Your task to perform on an android device: Open network settings Image 0: 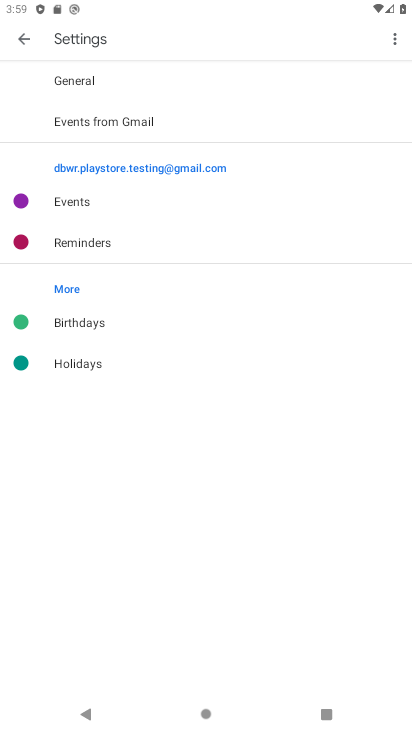
Step 0: click (86, 80)
Your task to perform on an android device: Open network settings Image 1: 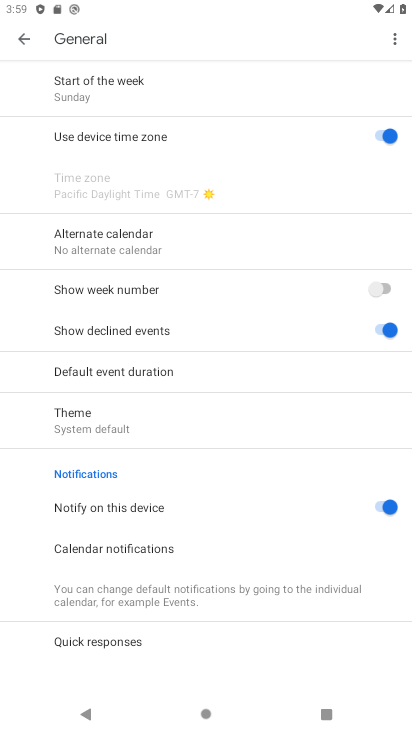
Step 1: click (25, 37)
Your task to perform on an android device: Open network settings Image 2: 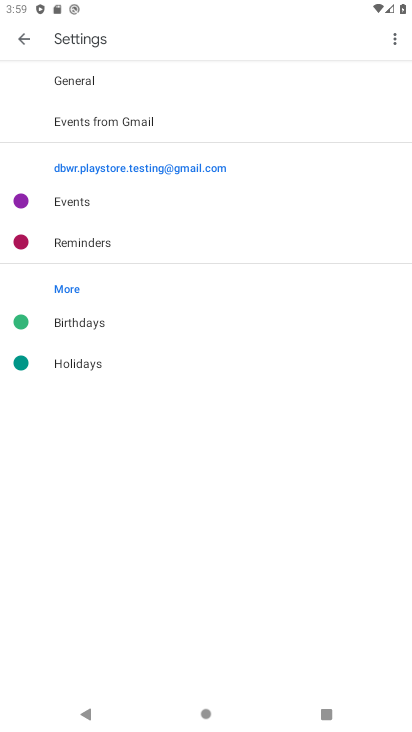
Step 2: click (32, 37)
Your task to perform on an android device: Open network settings Image 3: 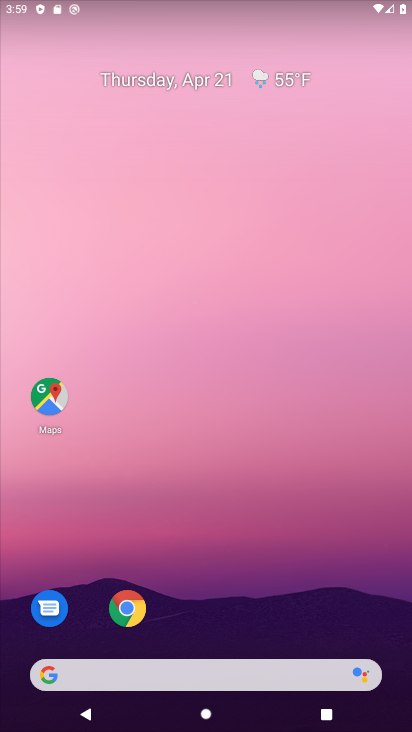
Step 3: drag from (198, 635) to (242, 35)
Your task to perform on an android device: Open network settings Image 4: 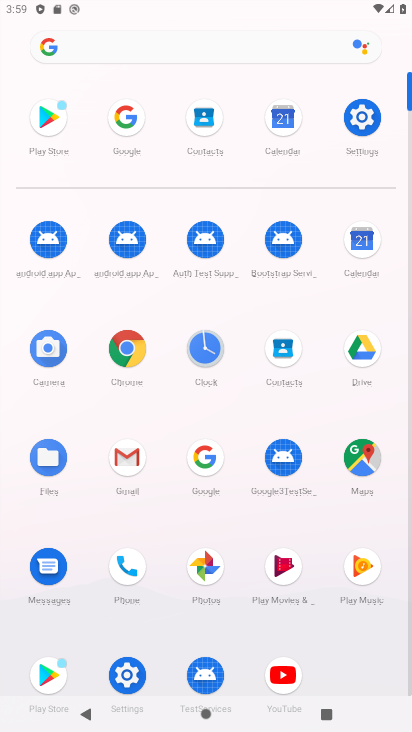
Step 4: click (356, 128)
Your task to perform on an android device: Open network settings Image 5: 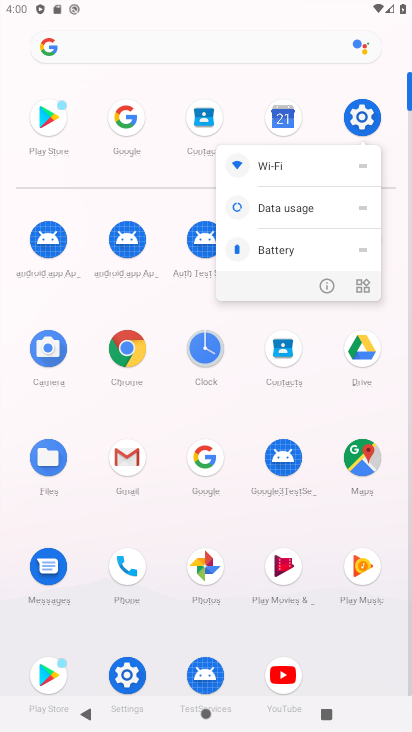
Step 5: click (364, 135)
Your task to perform on an android device: Open network settings Image 6: 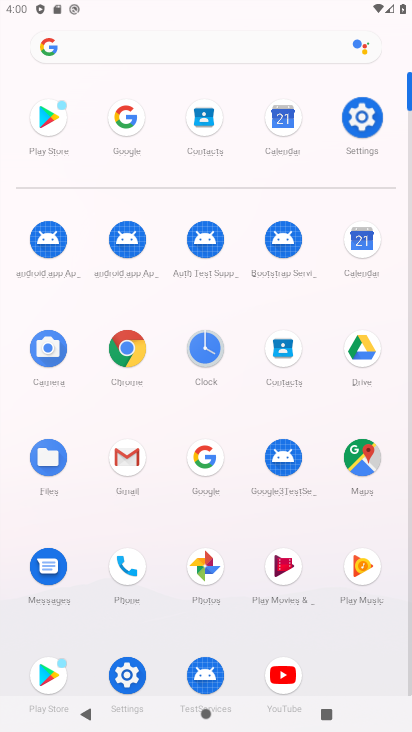
Step 6: click (363, 114)
Your task to perform on an android device: Open network settings Image 7: 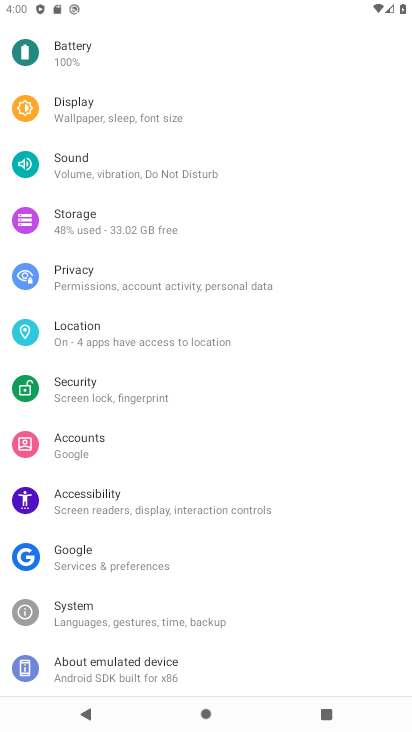
Step 7: click (362, 113)
Your task to perform on an android device: Open network settings Image 8: 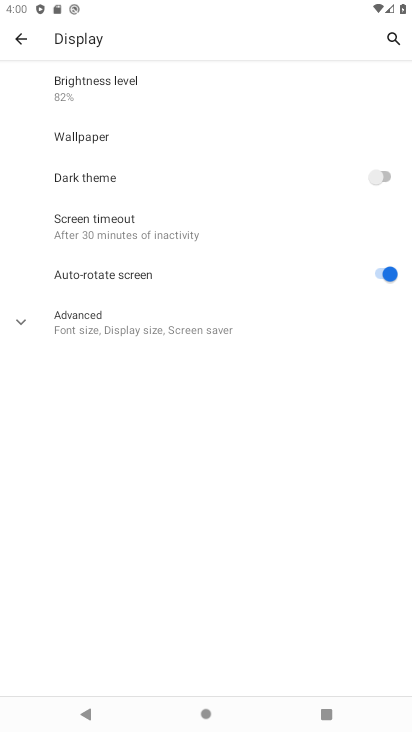
Step 8: click (21, 38)
Your task to perform on an android device: Open network settings Image 9: 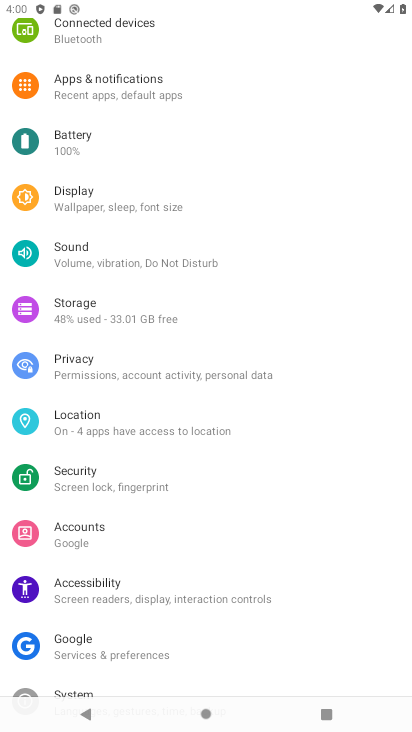
Step 9: drag from (237, 591) to (281, 176)
Your task to perform on an android device: Open network settings Image 10: 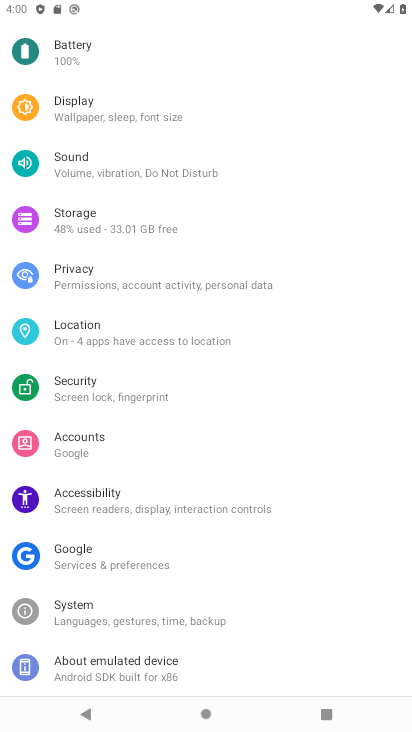
Step 10: drag from (267, 145) to (217, 564)
Your task to perform on an android device: Open network settings Image 11: 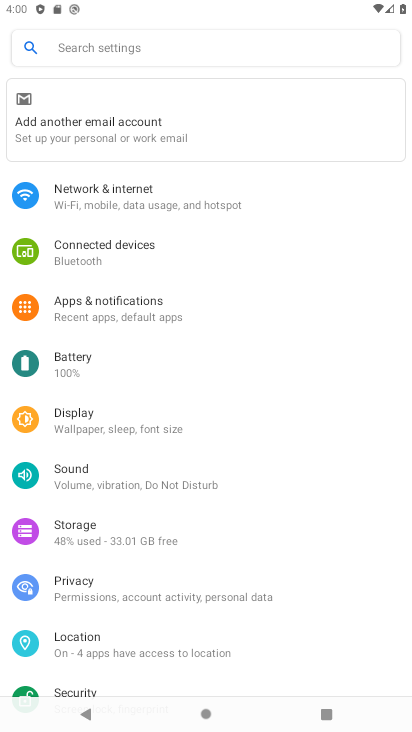
Step 11: click (202, 207)
Your task to perform on an android device: Open network settings Image 12: 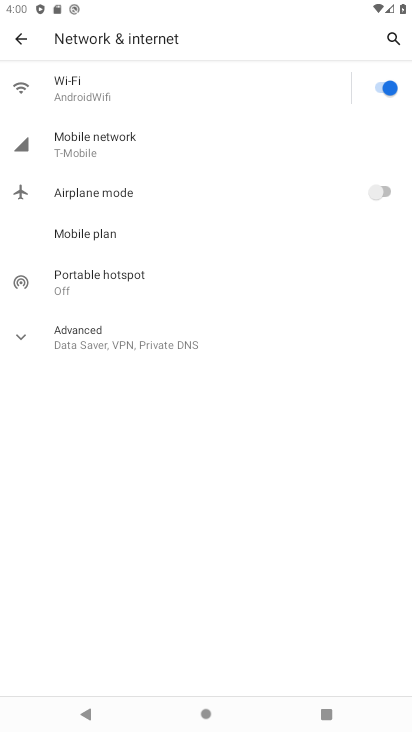
Step 12: task complete